Your task to perform on an android device: see creations saved in the google photos Image 0: 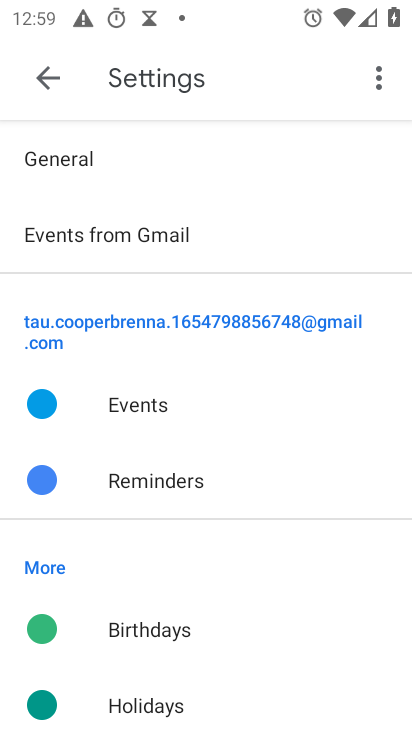
Step 0: press home button
Your task to perform on an android device: see creations saved in the google photos Image 1: 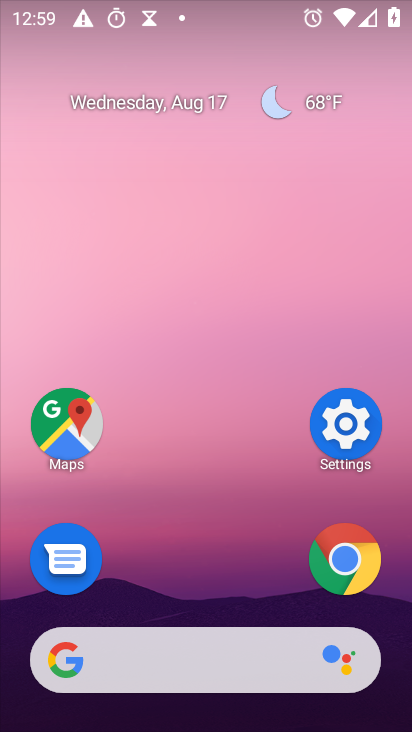
Step 1: drag from (167, 608) to (305, 141)
Your task to perform on an android device: see creations saved in the google photos Image 2: 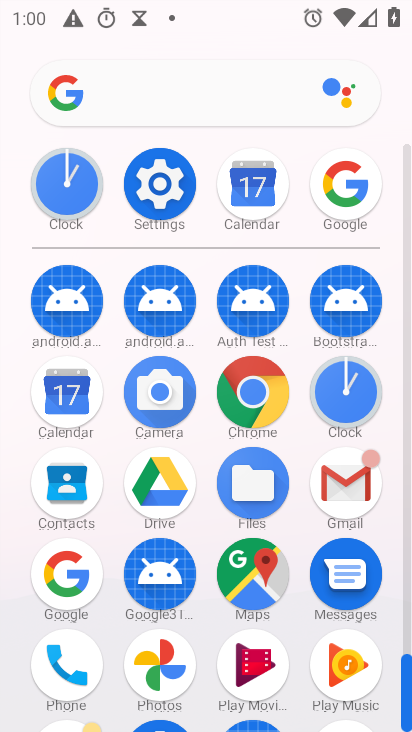
Step 2: click (153, 661)
Your task to perform on an android device: see creations saved in the google photos Image 3: 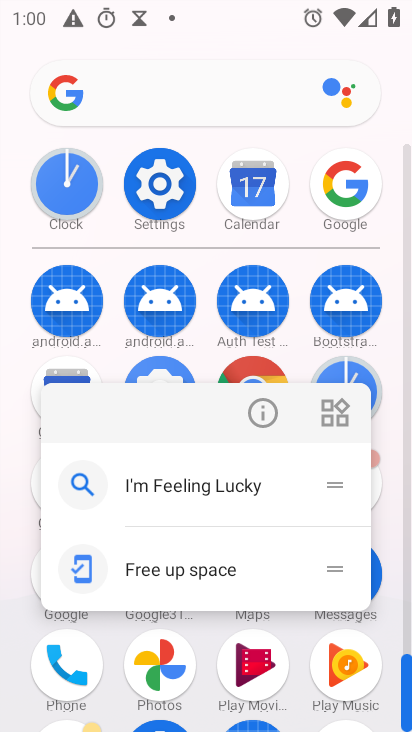
Step 3: click (158, 658)
Your task to perform on an android device: see creations saved in the google photos Image 4: 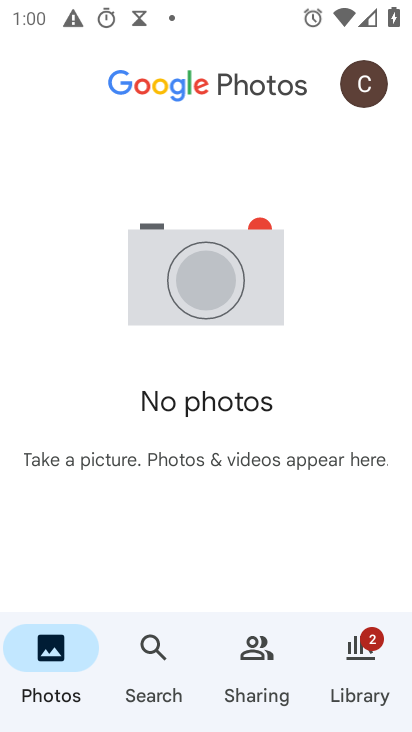
Step 4: click (149, 647)
Your task to perform on an android device: see creations saved in the google photos Image 5: 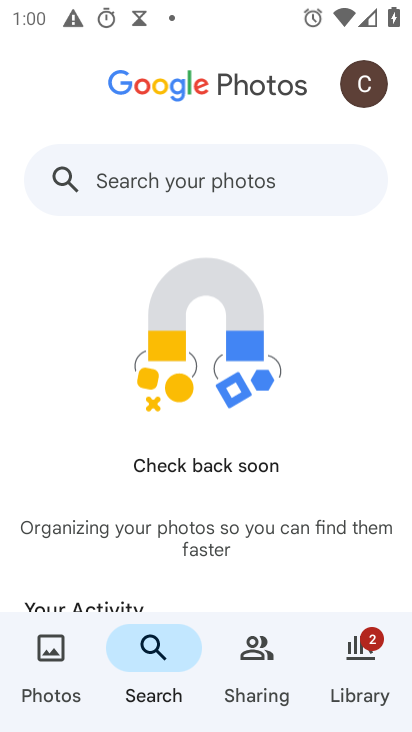
Step 5: drag from (160, 569) to (284, 288)
Your task to perform on an android device: see creations saved in the google photos Image 6: 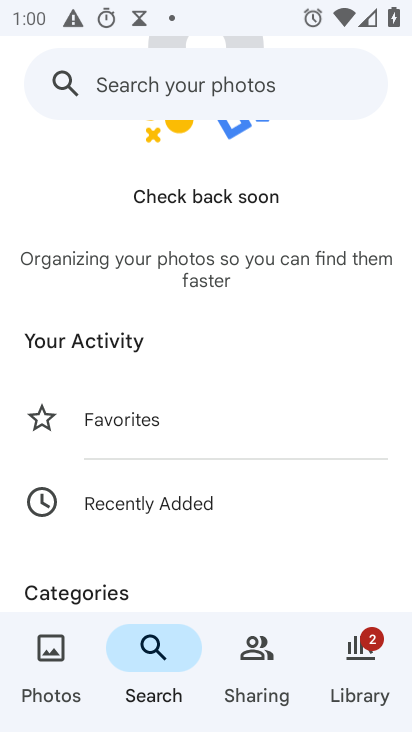
Step 6: drag from (239, 545) to (340, 101)
Your task to perform on an android device: see creations saved in the google photos Image 7: 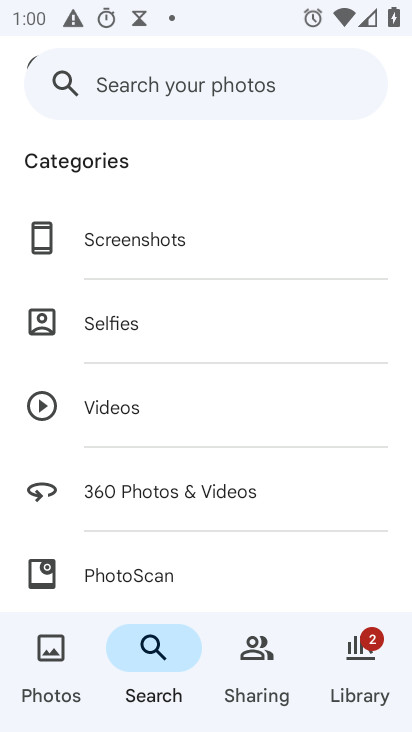
Step 7: drag from (208, 506) to (343, 91)
Your task to perform on an android device: see creations saved in the google photos Image 8: 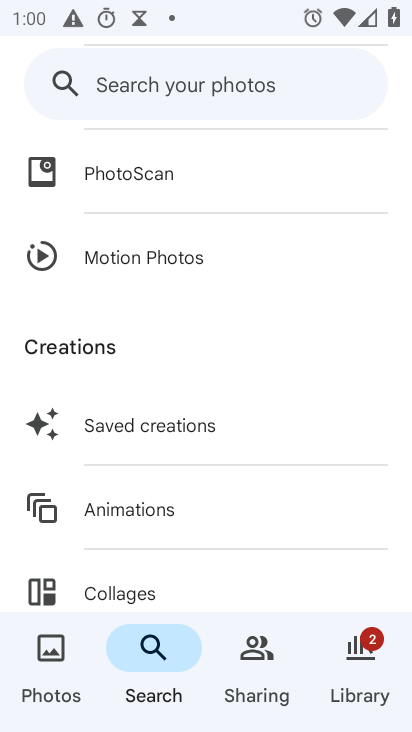
Step 8: click (176, 435)
Your task to perform on an android device: see creations saved in the google photos Image 9: 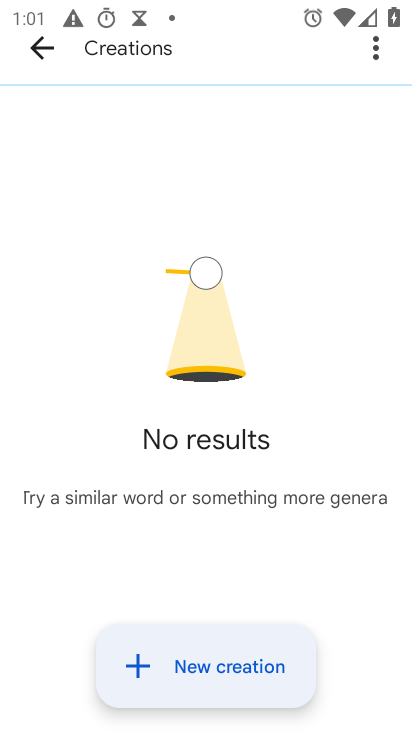
Step 9: task complete